Your task to perform on an android device: open app "Google Maps" (install if not already installed) Image 0: 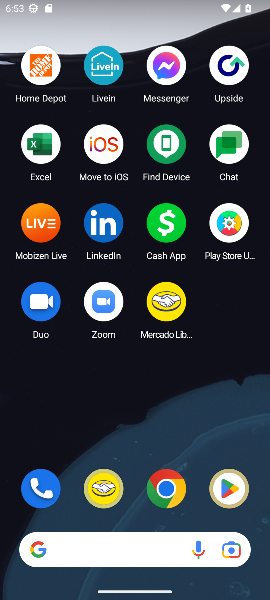
Step 0: drag from (130, 461) to (109, 105)
Your task to perform on an android device: open app "Google Maps" (install if not already installed) Image 1: 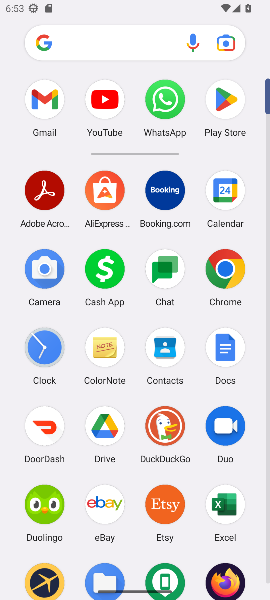
Step 1: drag from (143, 536) to (141, 110)
Your task to perform on an android device: open app "Google Maps" (install if not already installed) Image 2: 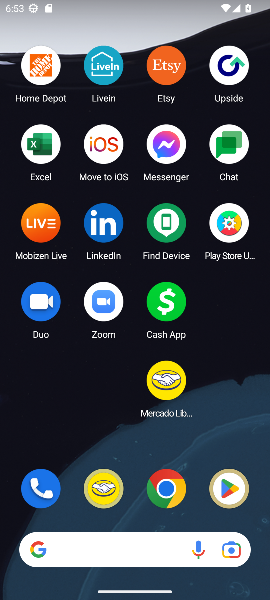
Step 2: drag from (218, 442) to (214, 111)
Your task to perform on an android device: open app "Google Maps" (install if not already installed) Image 3: 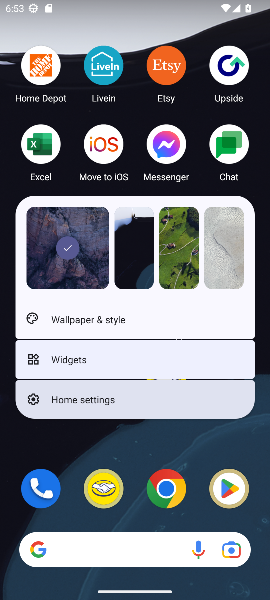
Step 3: click (63, 436)
Your task to perform on an android device: open app "Google Maps" (install if not already installed) Image 4: 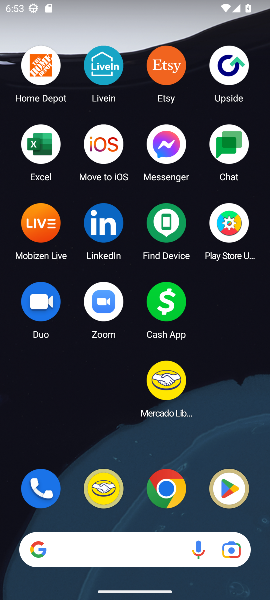
Step 4: drag from (74, 443) to (66, 126)
Your task to perform on an android device: open app "Google Maps" (install if not already installed) Image 5: 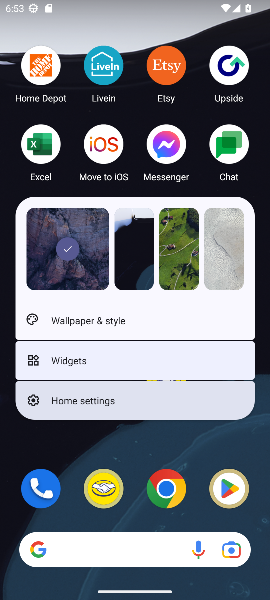
Step 5: click (78, 453)
Your task to perform on an android device: open app "Google Maps" (install if not already installed) Image 6: 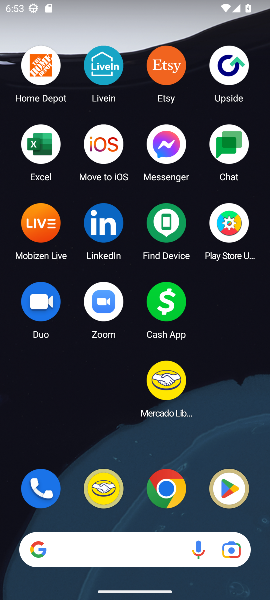
Step 6: drag from (72, 504) to (57, 100)
Your task to perform on an android device: open app "Google Maps" (install if not already installed) Image 7: 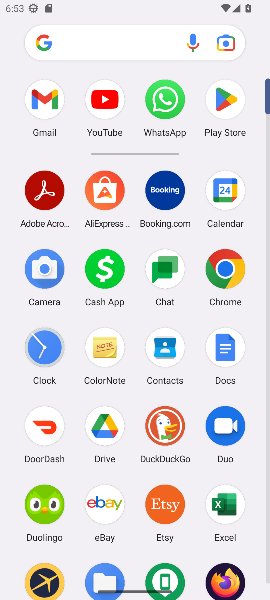
Step 7: drag from (134, 479) to (134, 202)
Your task to perform on an android device: open app "Google Maps" (install if not already installed) Image 8: 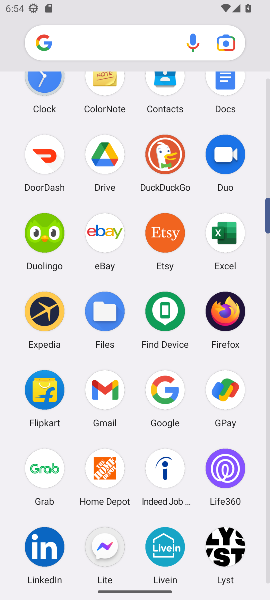
Step 8: drag from (127, 519) to (124, 155)
Your task to perform on an android device: open app "Google Maps" (install if not already installed) Image 9: 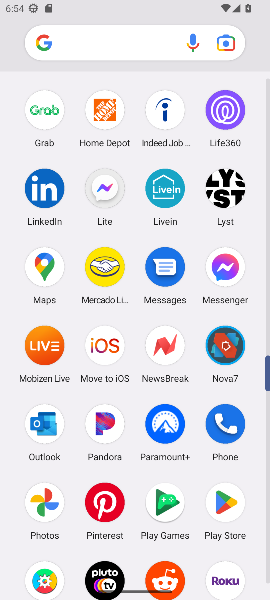
Step 9: click (224, 514)
Your task to perform on an android device: open app "Google Maps" (install if not already installed) Image 10: 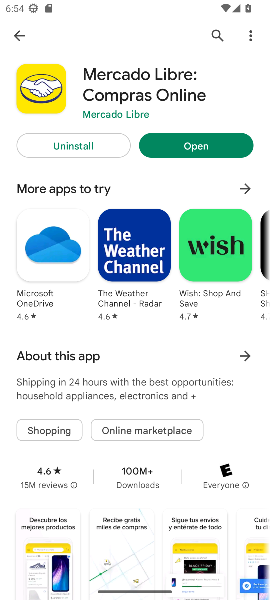
Step 10: click (220, 44)
Your task to perform on an android device: open app "Google Maps" (install if not already installed) Image 11: 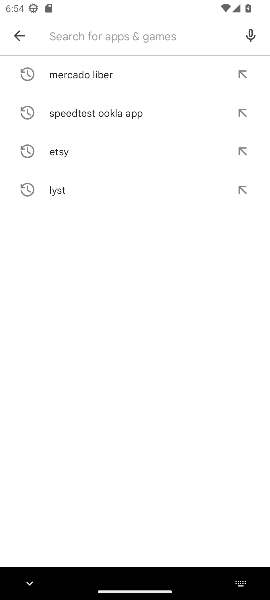
Step 11: type "google maopp"
Your task to perform on an android device: open app "Google Maps" (install if not already installed) Image 12: 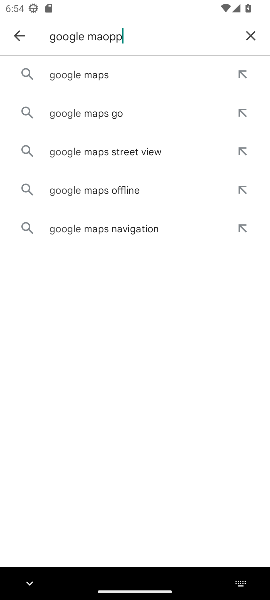
Step 12: click (123, 84)
Your task to perform on an android device: open app "Google Maps" (install if not already installed) Image 13: 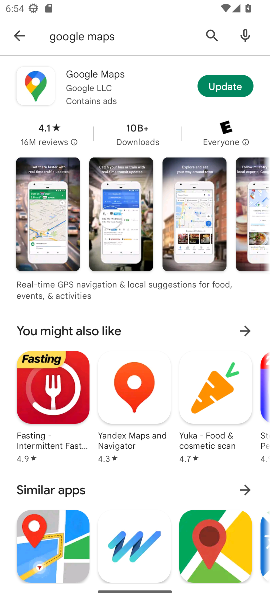
Step 13: click (208, 91)
Your task to perform on an android device: open app "Google Maps" (install if not already installed) Image 14: 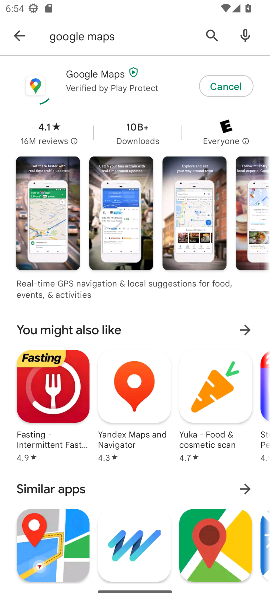
Step 14: task complete